Your task to perform on an android device: check data usage Image 0: 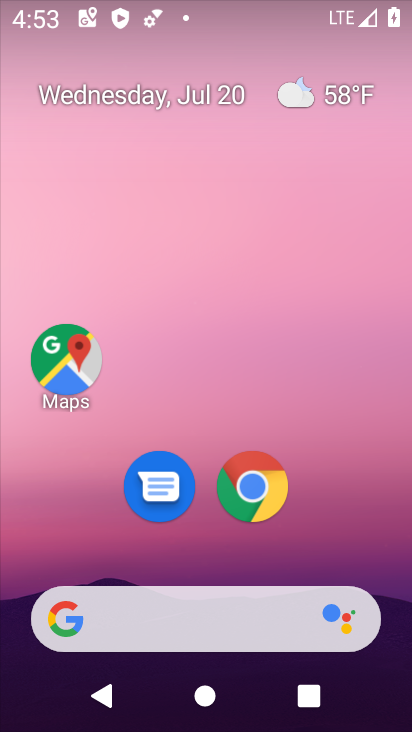
Step 0: drag from (67, 537) to (158, 16)
Your task to perform on an android device: check data usage Image 1: 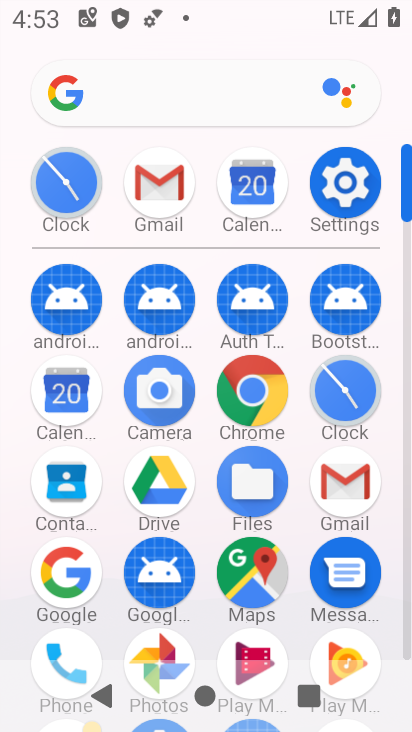
Step 1: click (344, 196)
Your task to perform on an android device: check data usage Image 2: 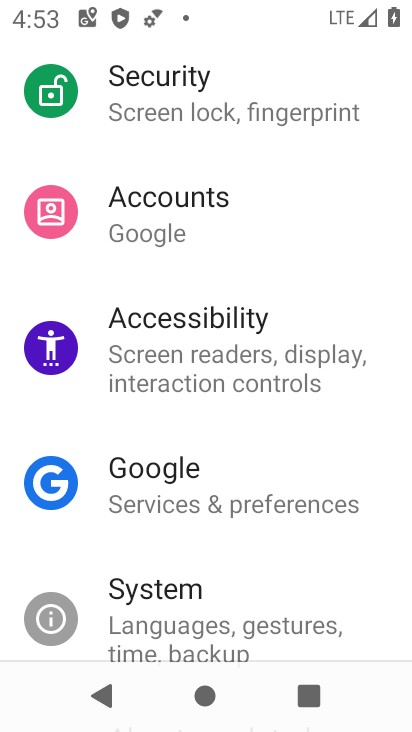
Step 2: drag from (209, 180) to (168, 718)
Your task to perform on an android device: check data usage Image 3: 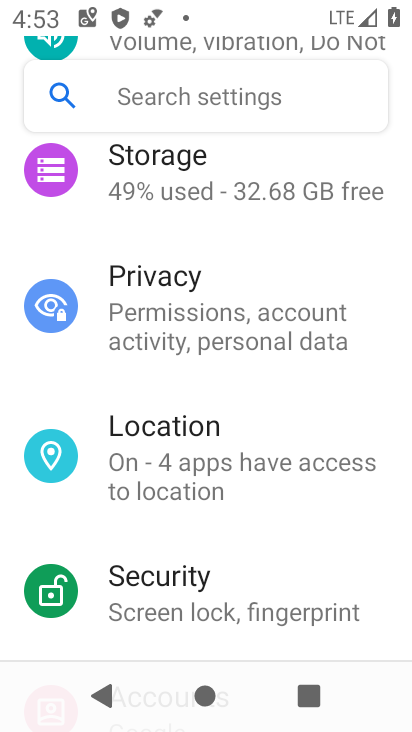
Step 3: drag from (195, 230) to (132, 726)
Your task to perform on an android device: check data usage Image 4: 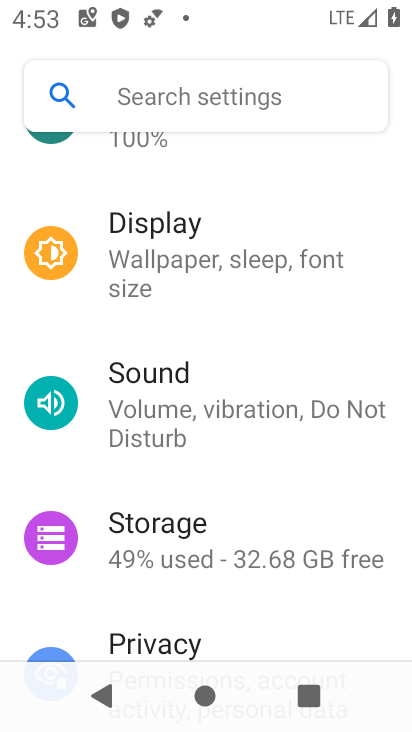
Step 4: drag from (202, 162) to (204, 723)
Your task to perform on an android device: check data usage Image 5: 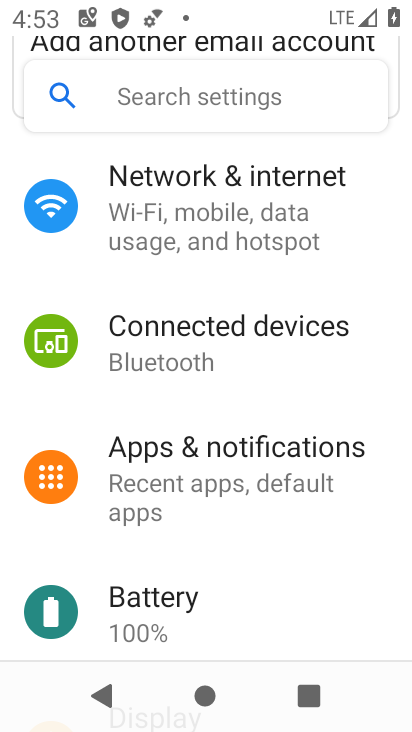
Step 5: click (197, 215)
Your task to perform on an android device: check data usage Image 6: 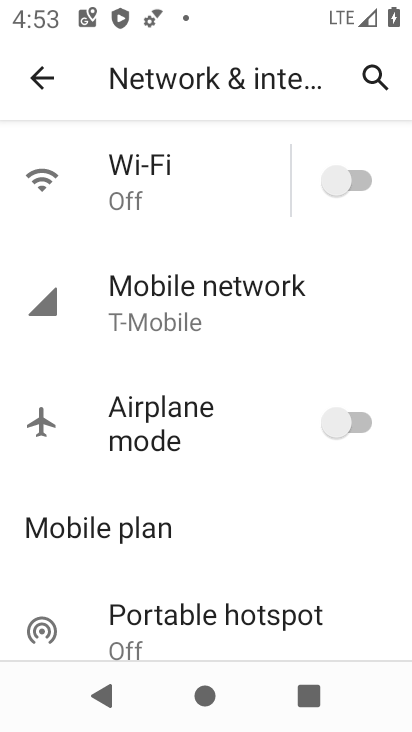
Step 6: click (167, 295)
Your task to perform on an android device: check data usage Image 7: 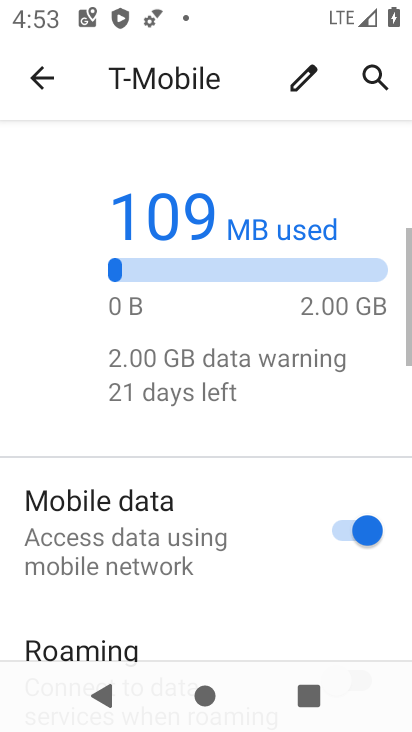
Step 7: drag from (144, 596) to (230, 106)
Your task to perform on an android device: check data usage Image 8: 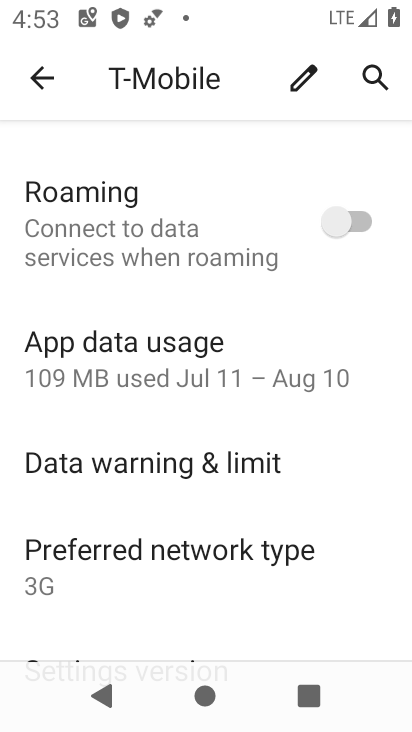
Step 8: click (132, 347)
Your task to perform on an android device: check data usage Image 9: 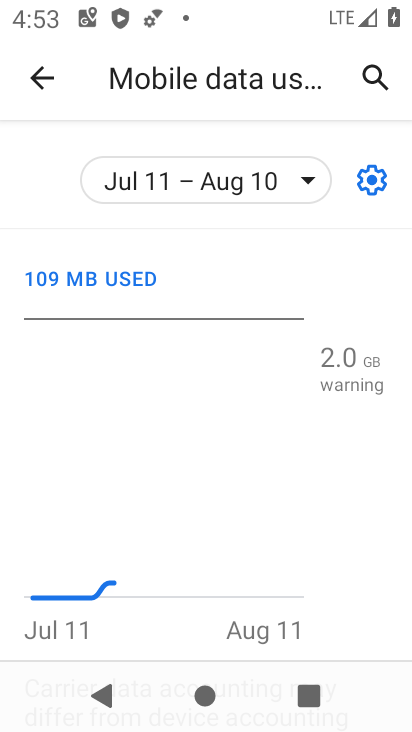
Step 9: task complete